Your task to perform on an android device: Open CNN.com Image 0: 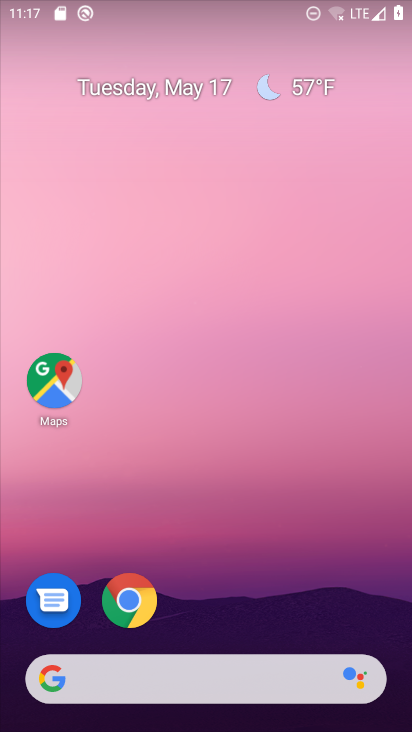
Step 0: drag from (244, 558) to (404, 95)
Your task to perform on an android device: Open CNN.com Image 1: 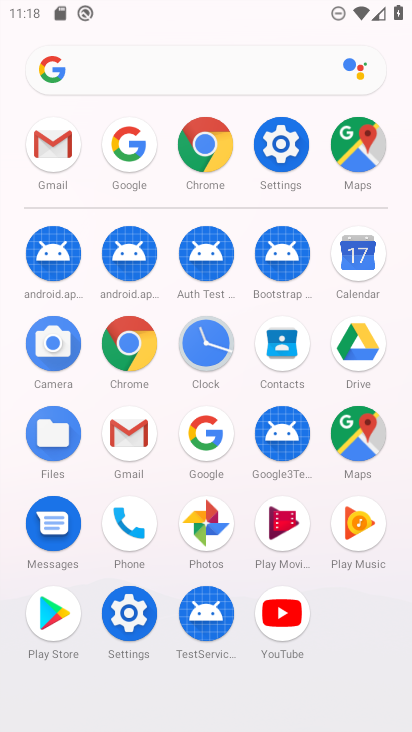
Step 1: click (207, 141)
Your task to perform on an android device: Open CNN.com Image 2: 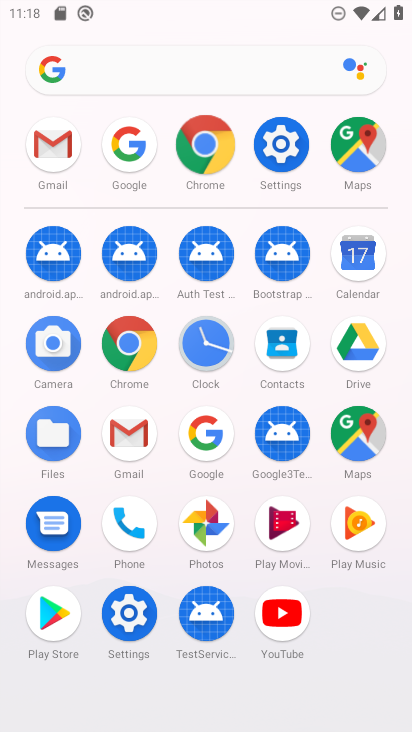
Step 2: click (206, 140)
Your task to perform on an android device: Open CNN.com Image 3: 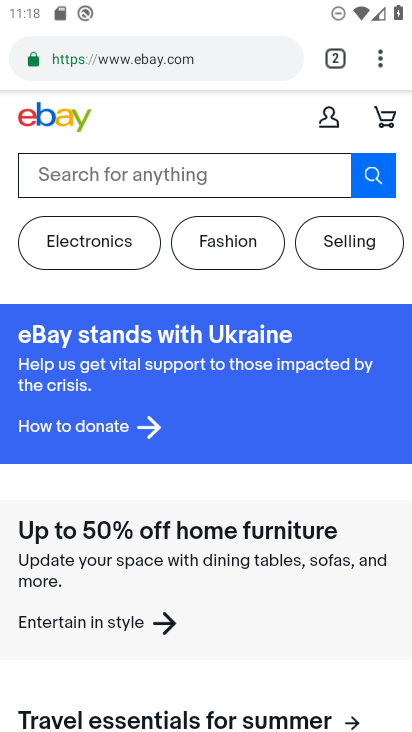
Step 3: drag from (380, 60) to (210, 146)
Your task to perform on an android device: Open CNN.com Image 4: 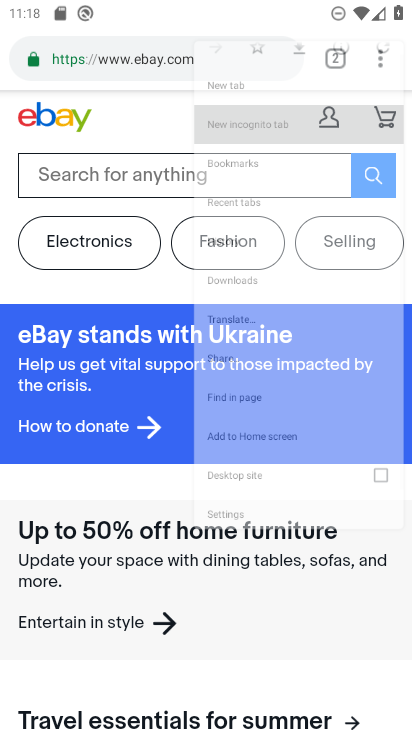
Step 4: drag from (192, 126) to (170, 92)
Your task to perform on an android device: Open CNN.com Image 5: 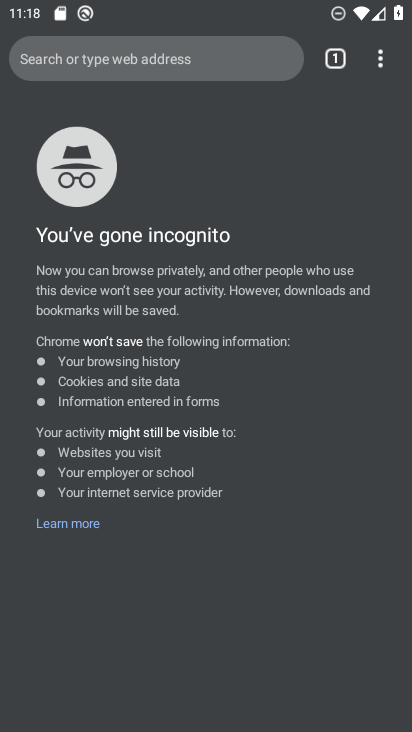
Step 5: drag from (376, 67) to (186, 110)
Your task to perform on an android device: Open CNN.com Image 6: 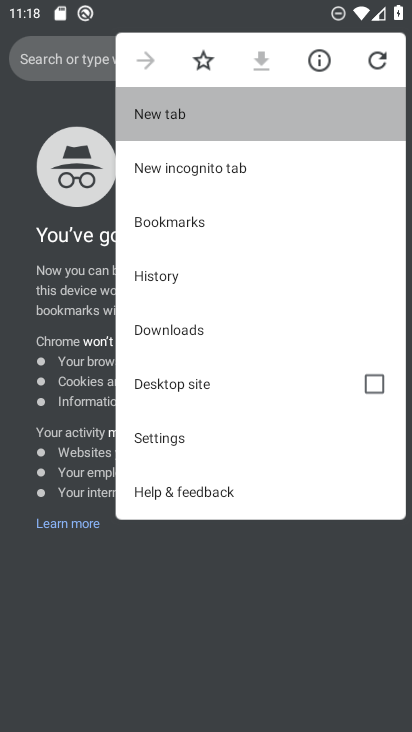
Step 6: click (189, 117)
Your task to perform on an android device: Open CNN.com Image 7: 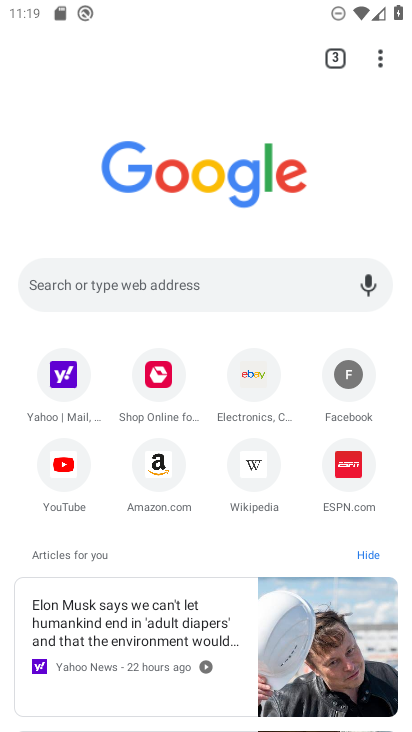
Step 7: click (379, 51)
Your task to perform on an android device: Open CNN.com Image 8: 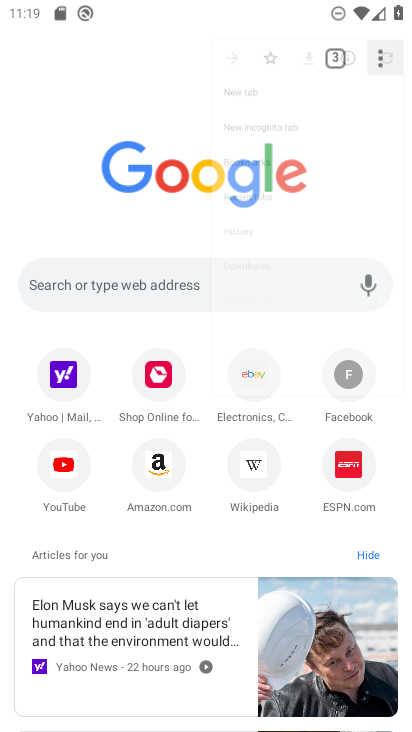
Step 8: drag from (379, 51) to (147, 109)
Your task to perform on an android device: Open CNN.com Image 9: 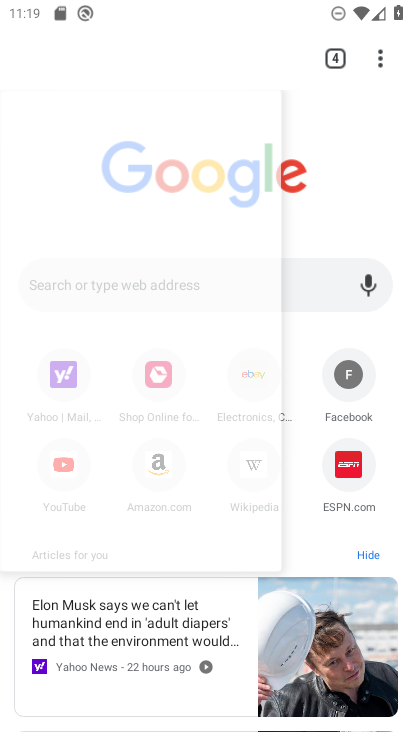
Step 9: click (152, 114)
Your task to perform on an android device: Open CNN.com Image 10: 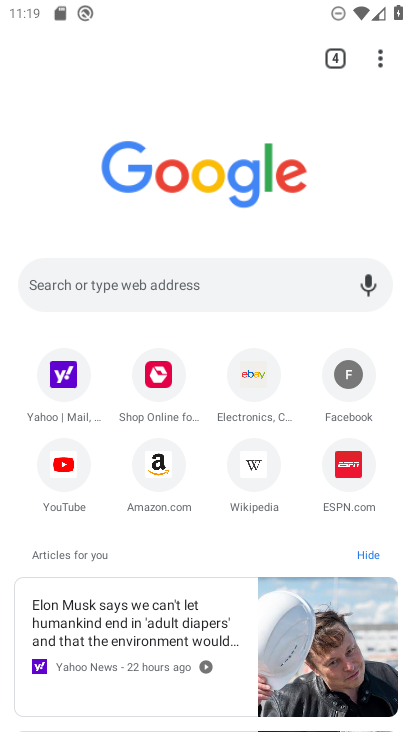
Step 10: click (45, 291)
Your task to perform on an android device: Open CNN.com Image 11: 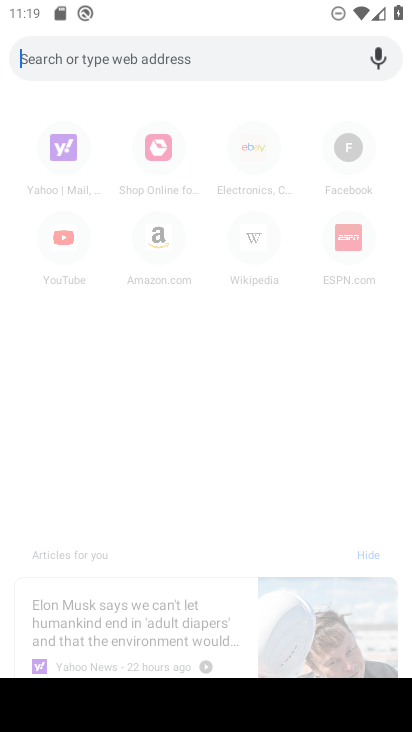
Step 11: type "cnn.com"
Your task to perform on an android device: Open CNN.com Image 12: 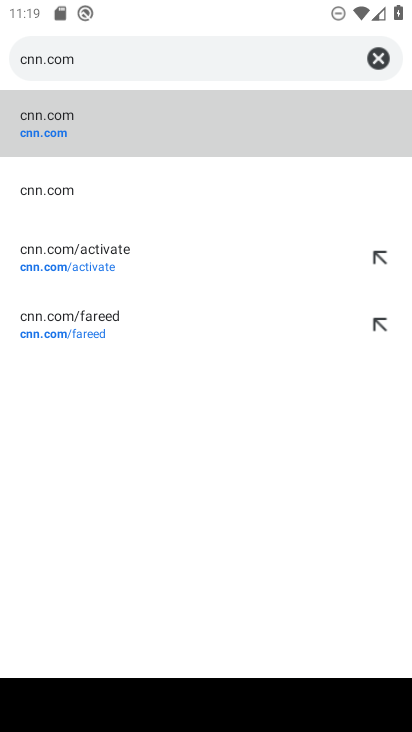
Step 12: click (34, 118)
Your task to perform on an android device: Open CNN.com Image 13: 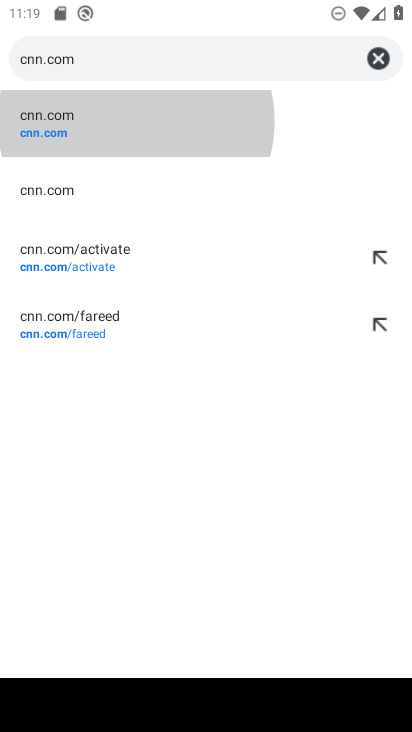
Step 13: click (34, 118)
Your task to perform on an android device: Open CNN.com Image 14: 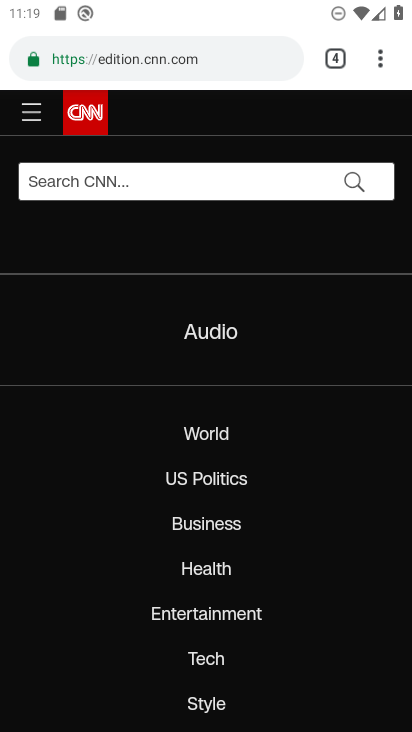
Step 14: task complete